Your task to perform on an android device: turn notification dots off Image 0: 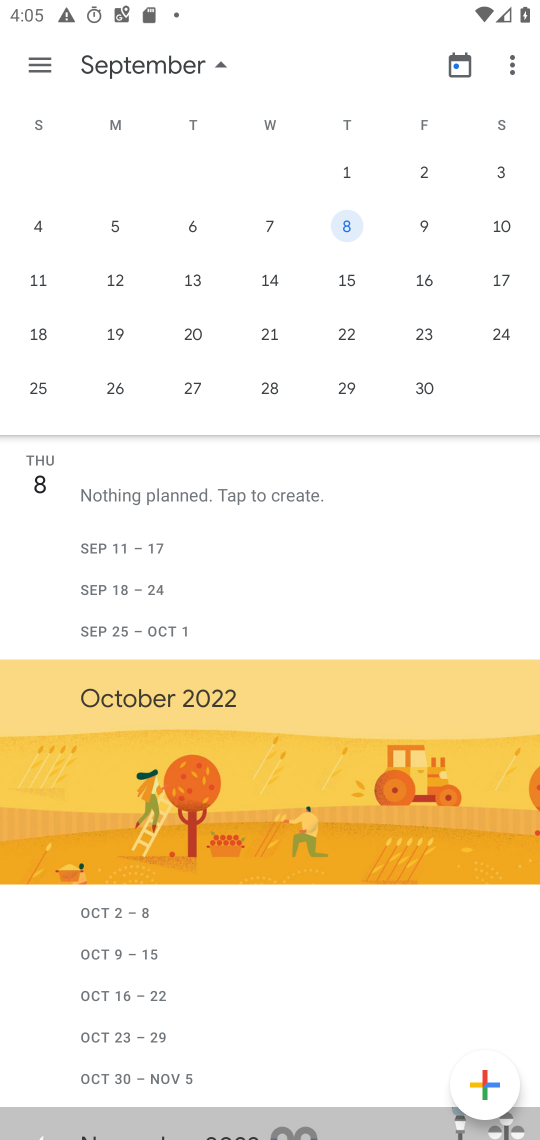
Step 0: press home button
Your task to perform on an android device: turn notification dots off Image 1: 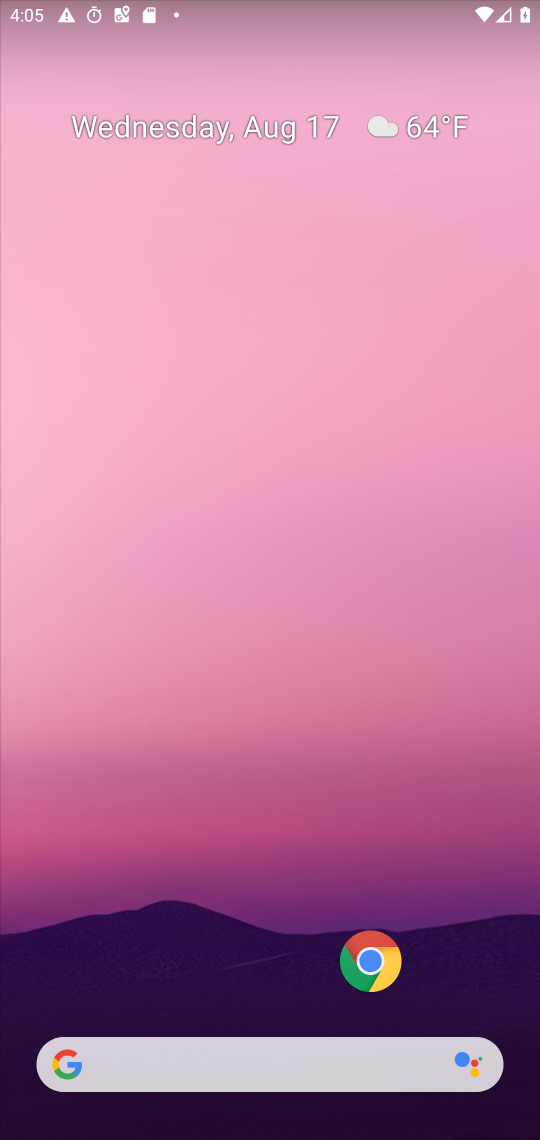
Step 1: drag from (352, 789) to (400, 80)
Your task to perform on an android device: turn notification dots off Image 2: 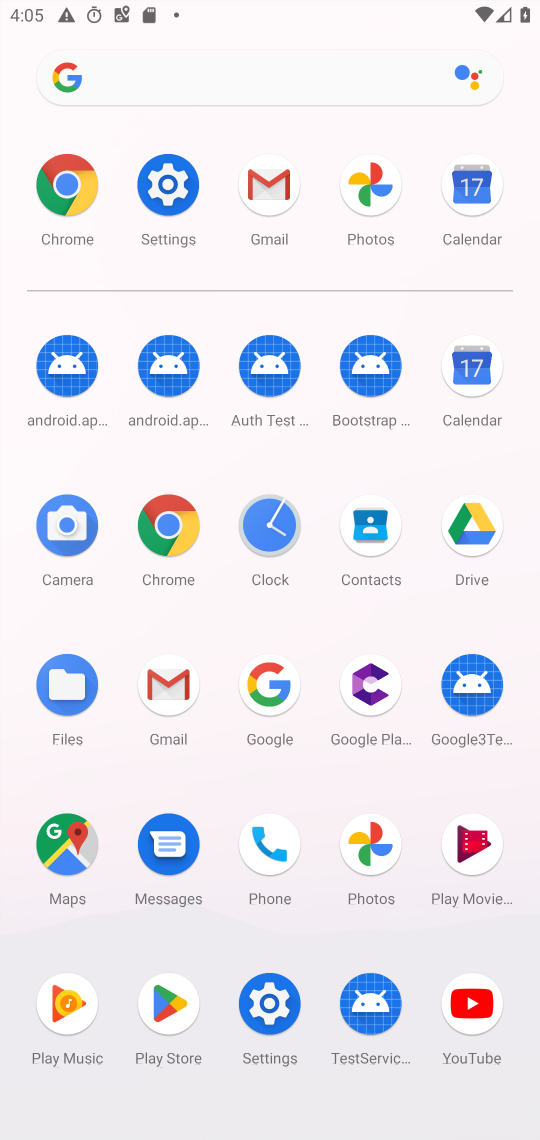
Step 2: click (171, 184)
Your task to perform on an android device: turn notification dots off Image 3: 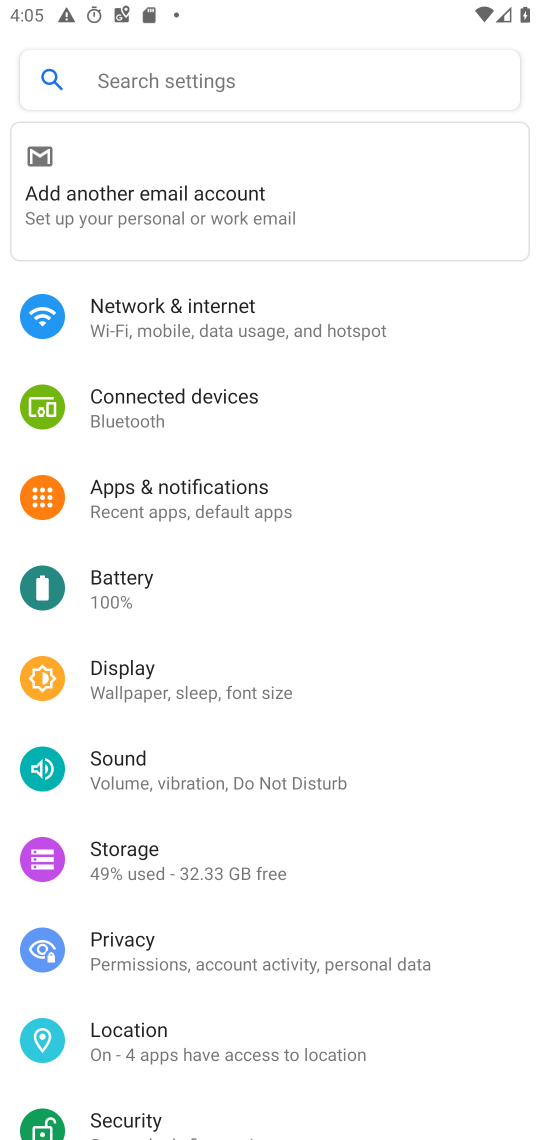
Step 3: click (178, 520)
Your task to perform on an android device: turn notification dots off Image 4: 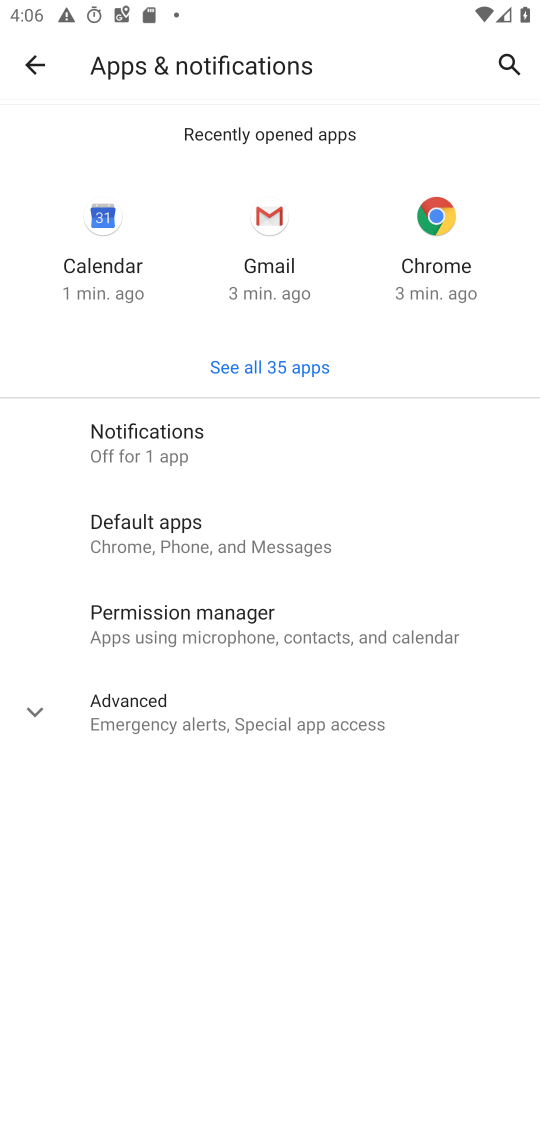
Step 4: click (239, 434)
Your task to perform on an android device: turn notification dots off Image 5: 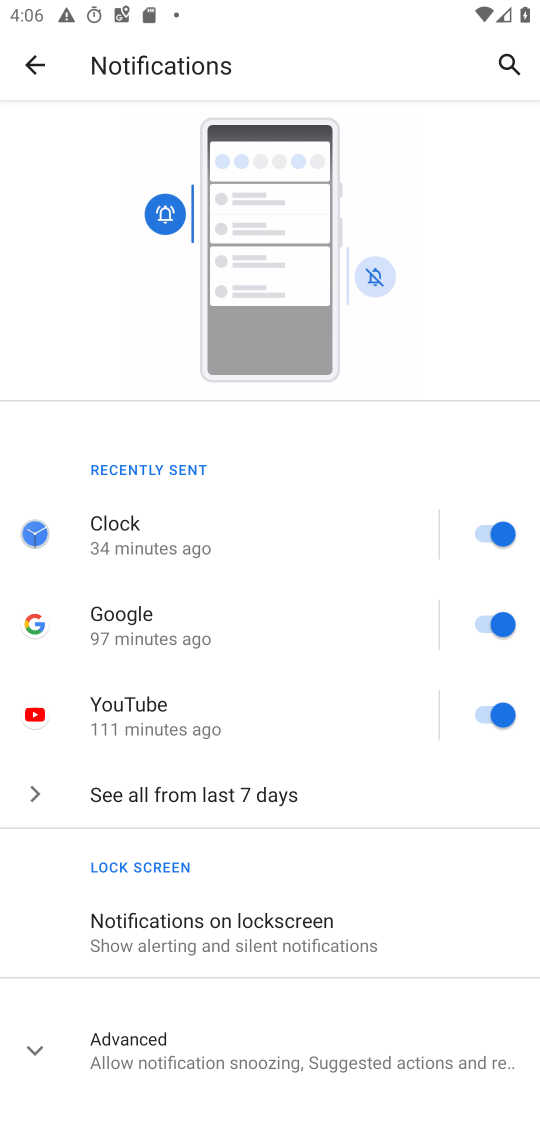
Step 5: click (213, 1043)
Your task to perform on an android device: turn notification dots off Image 6: 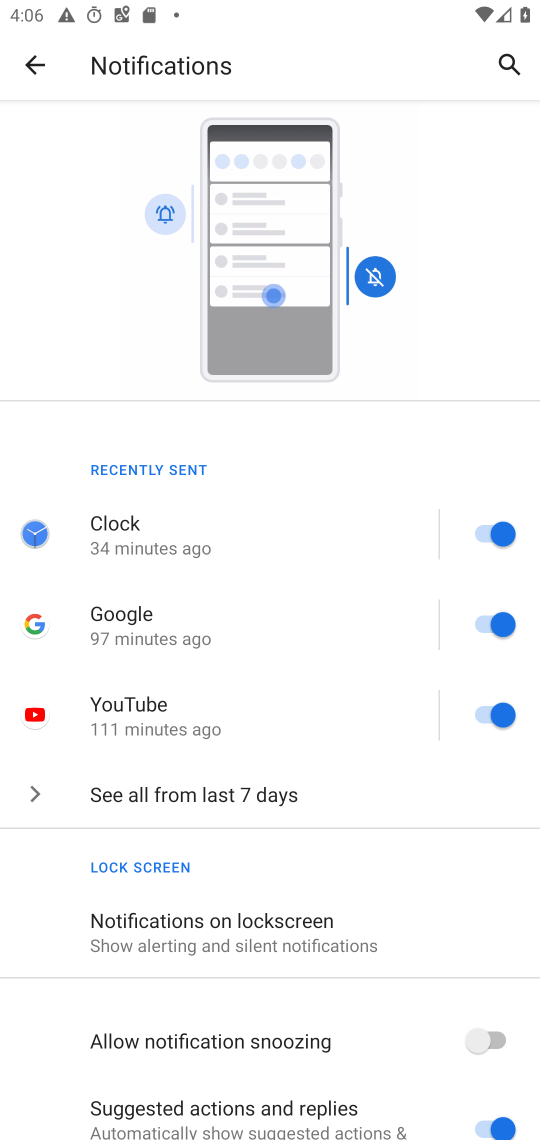
Step 6: drag from (193, 735) to (213, 2)
Your task to perform on an android device: turn notification dots off Image 7: 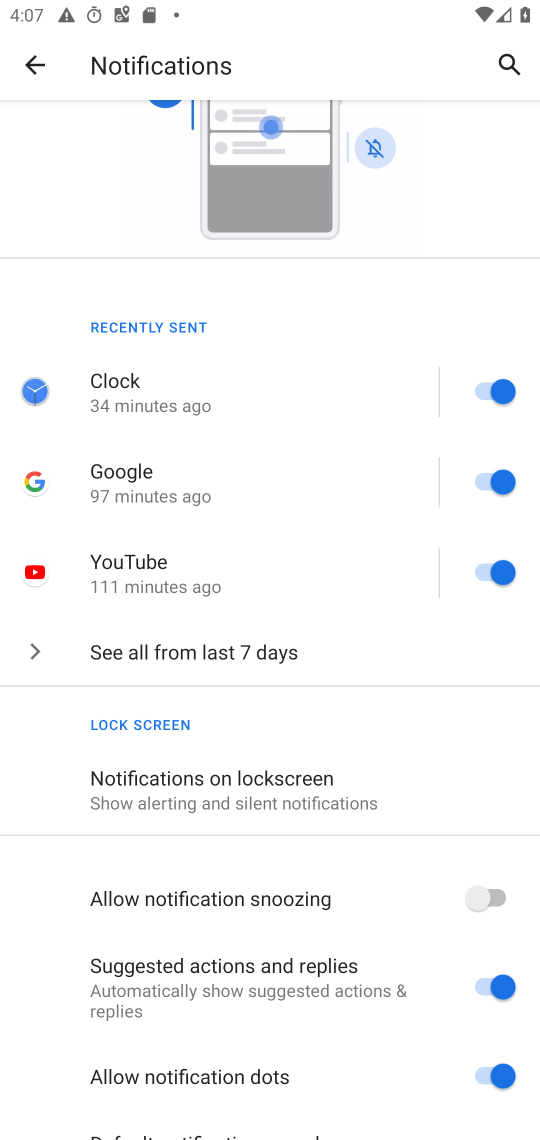
Step 7: drag from (347, 901) to (337, 500)
Your task to perform on an android device: turn notification dots off Image 8: 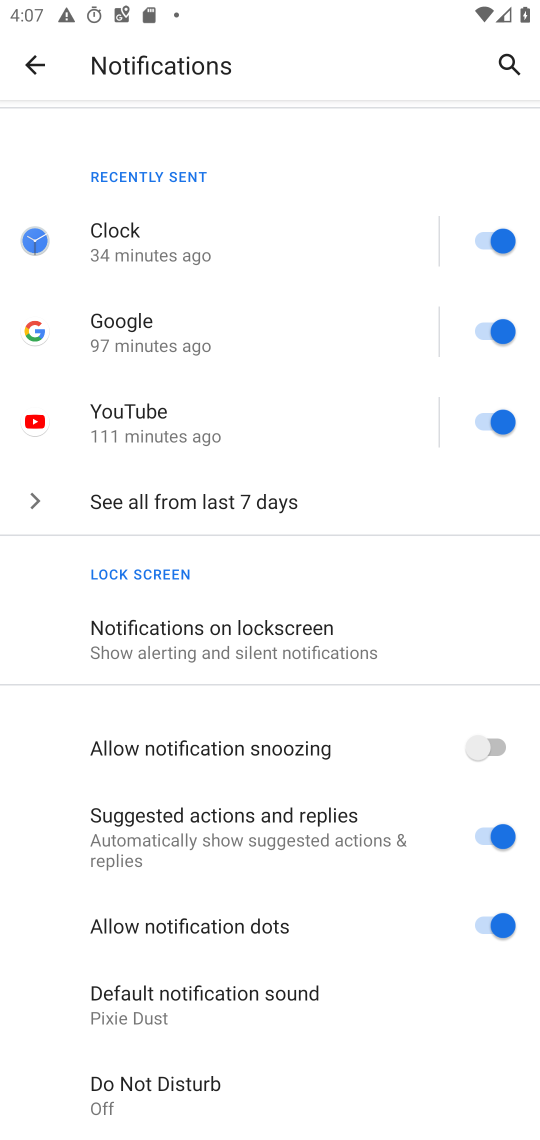
Step 8: click (494, 929)
Your task to perform on an android device: turn notification dots off Image 9: 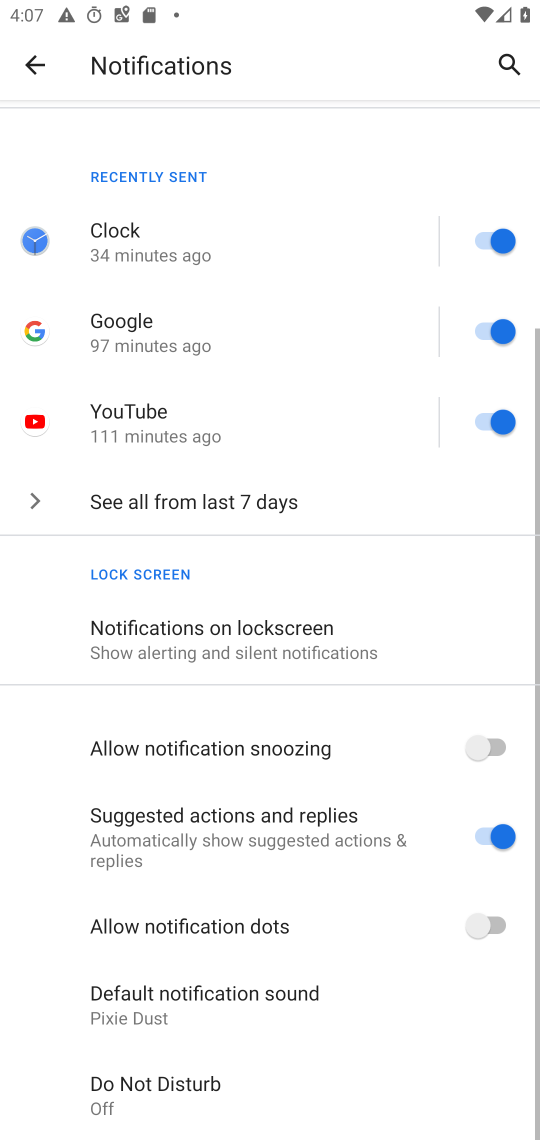
Step 9: task complete